Your task to perform on an android device: move an email to a new category in the gmail app Image 0: 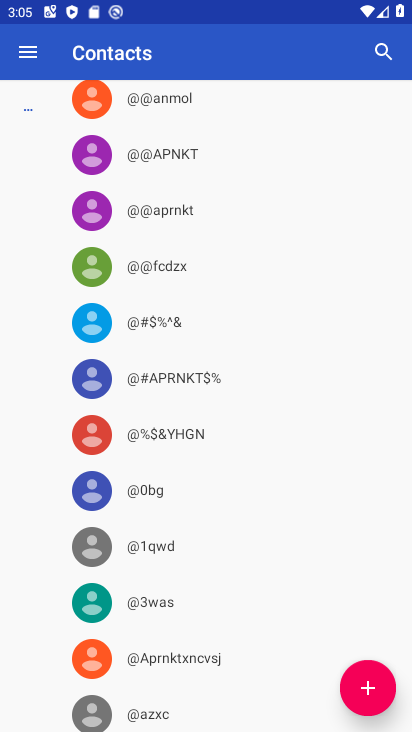
Step 0: press home button
Your task to perform on an android device: move an email to a new category in the gmail app Image 1: 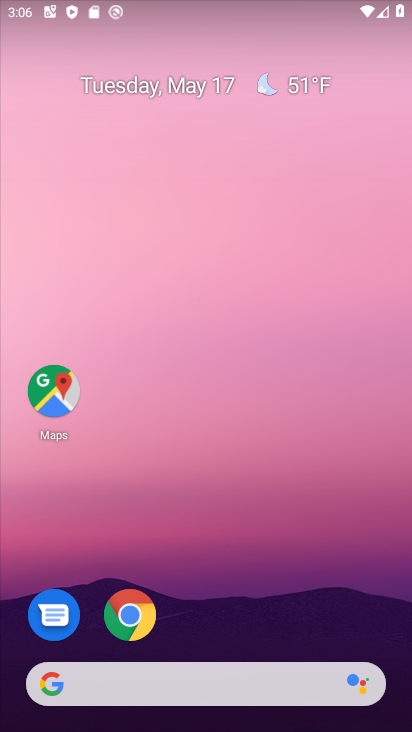
Step 1: drag from (212, 641) to (338, 81)
Your task to perform on an android device: move an email to a new category in the gmail app Image 2: 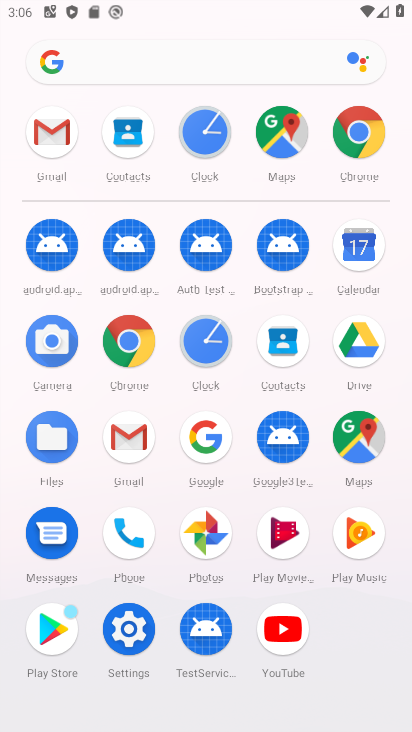
Step 2: click (127, 433)
Your task to perform on an android device: move an email to a new category in the gmail app Image 3: 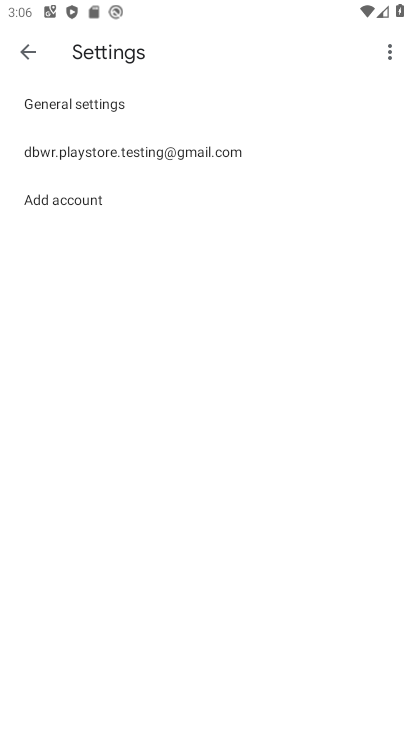
Step 3: click (29, 55)
Your task to perform on an android device: move an email to a new category in the gmail app Image 4: 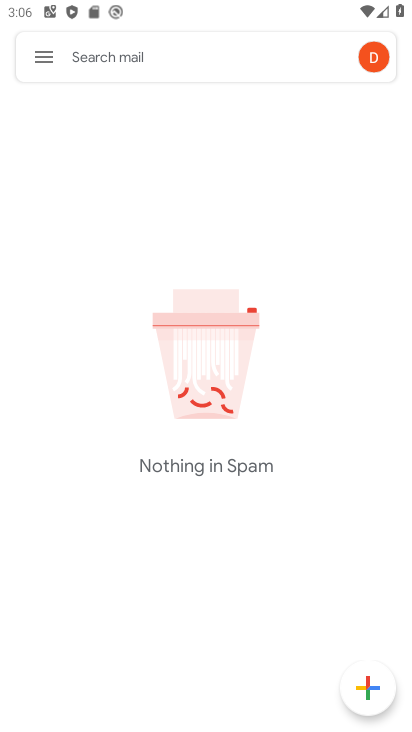
Step 4: click (47, 52)
Your task to perform on an android device: move an email to a new category in the gmail app Image 5: 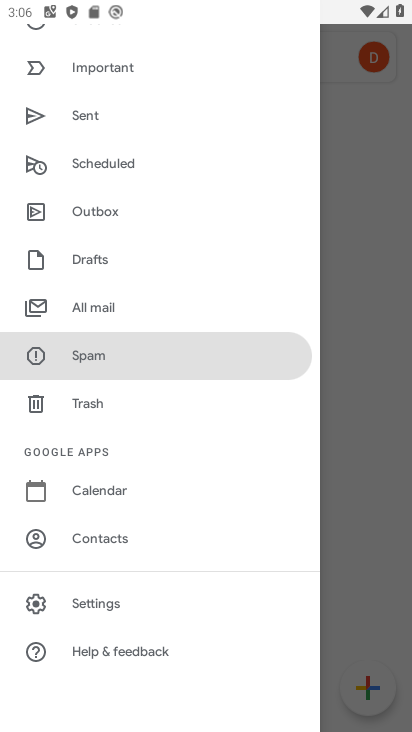
Step 5: click (106, 302)
Your task to perform on an android device: move an email to a new category in the gmail app Image 6: 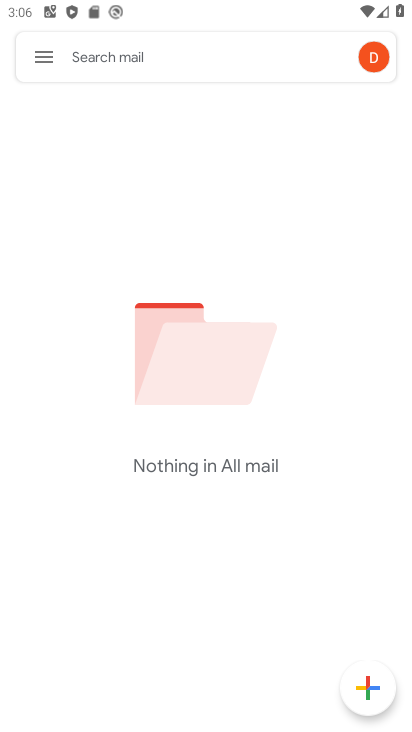
Step 6: click (44, 56)
Your task to perform on an android device: move an email to a new category in the gmail app Image 7: 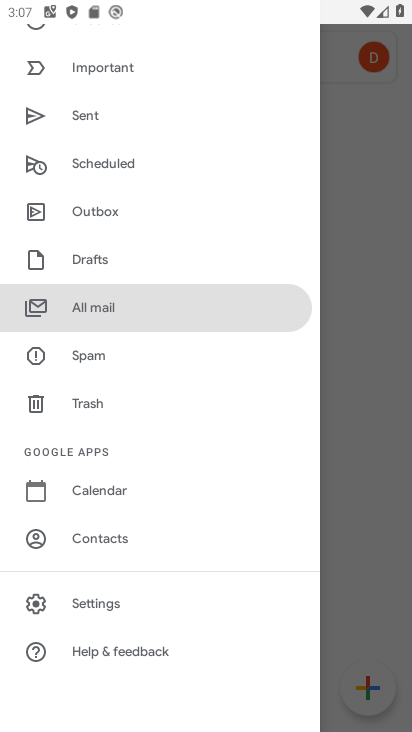
Step 7: click (133, 319)
Your task to perform on an android device: move an email to a new category in the gmail app Image 8: 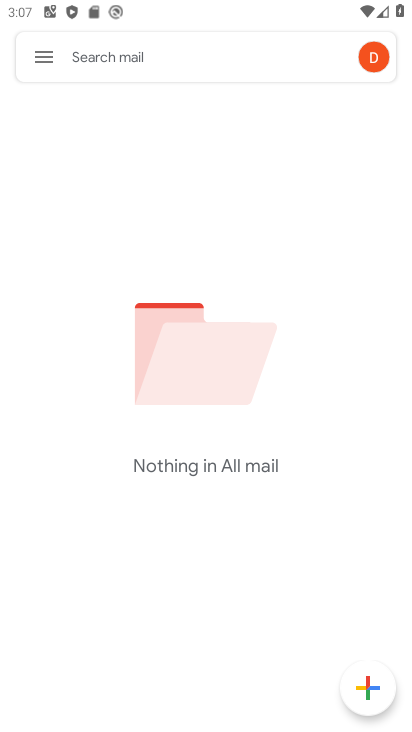
Step 8: task complete